Your task to perform on an android device: uninstall "Facebook Messenger" Image 0: 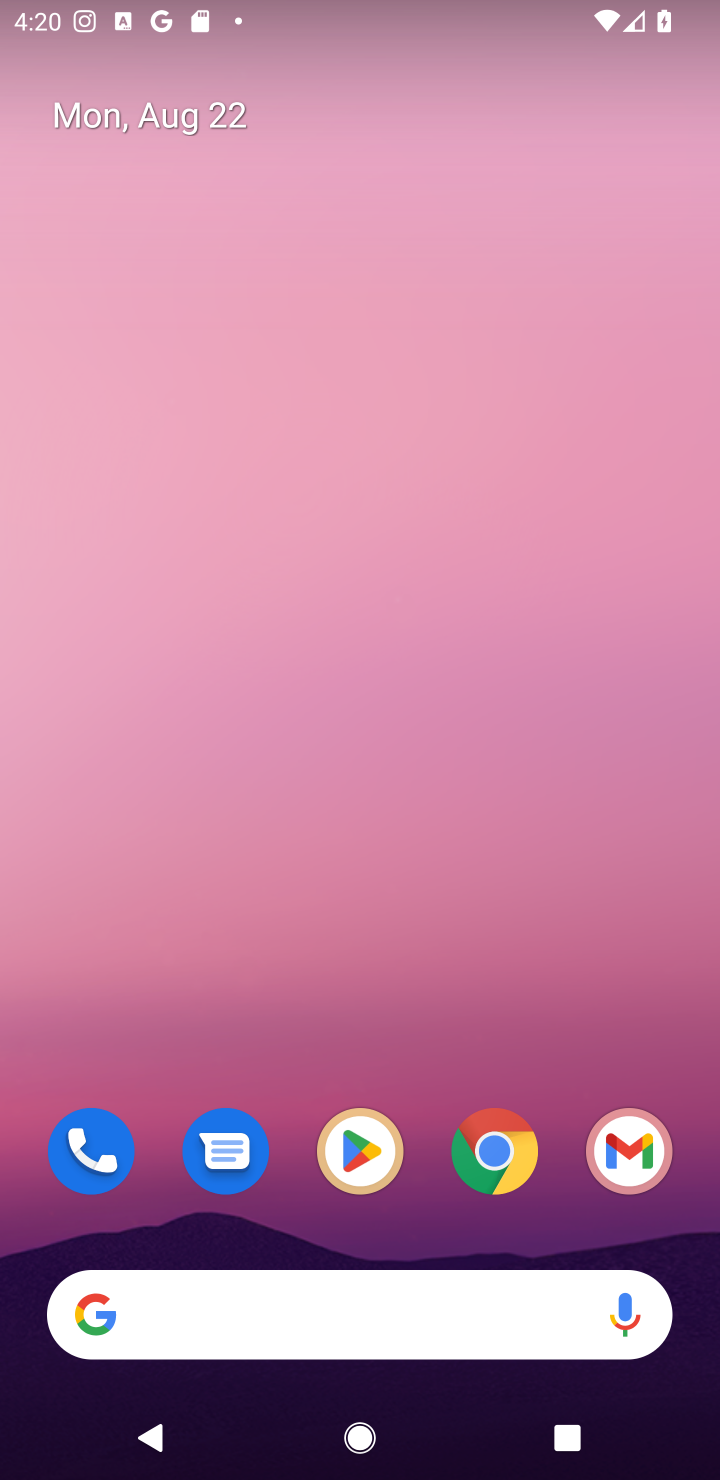
Step 0: click (368, 1144)
Your task to perform on an android device: uninstall "Facebook Messenger" Image 1: 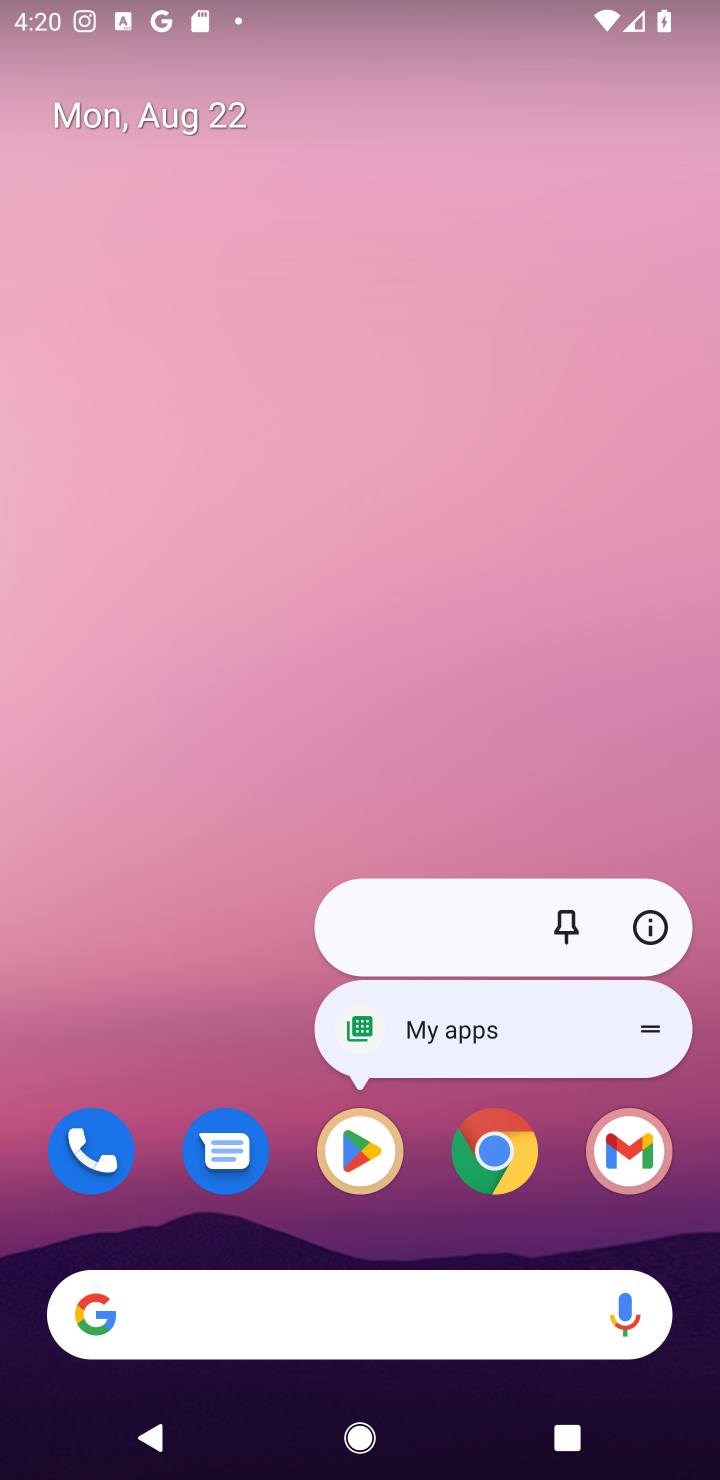
Step 1: click (368, 1147)
Your task to perform on an android device: uninstall "Facebook Messenger" Image 2: 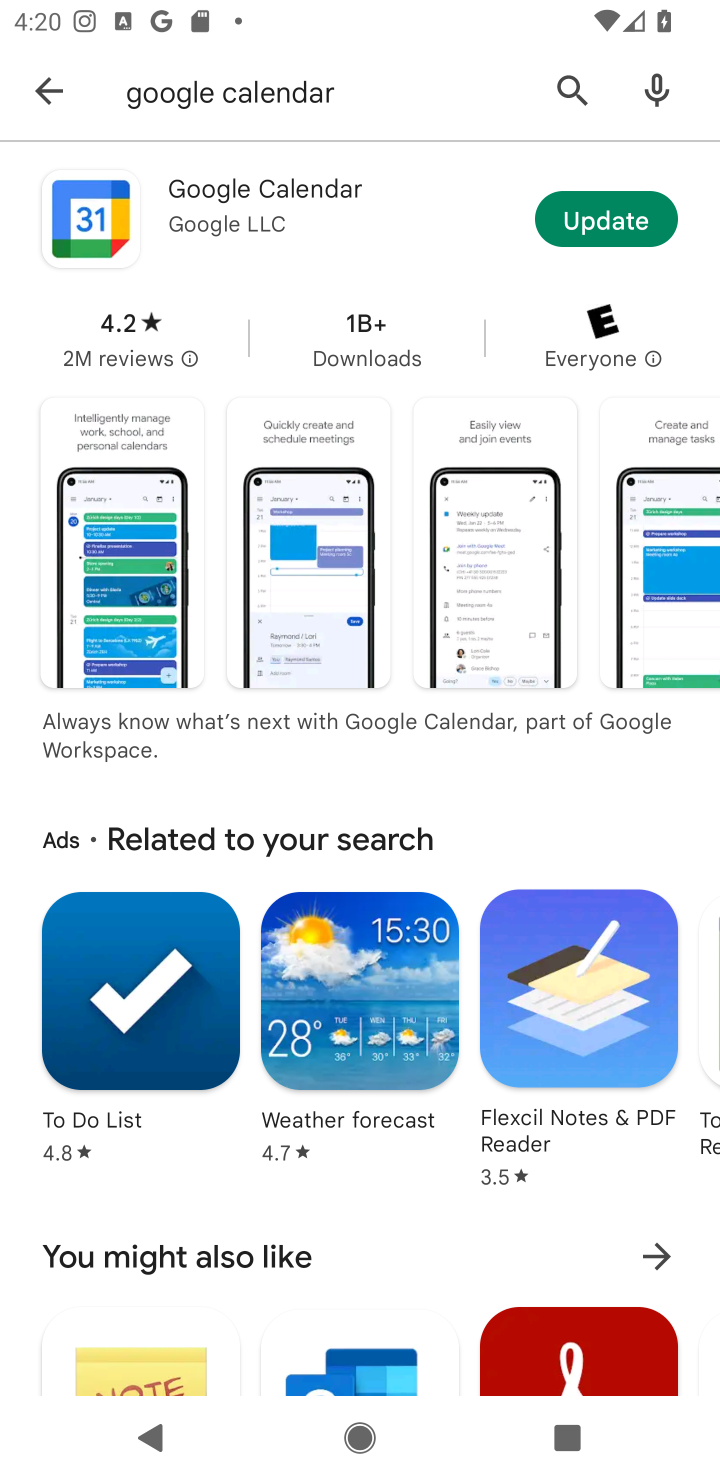
Step 2: click (569, 80)
Your task to perform on an android device: uninstall "Facebook Messenger" Image 3: 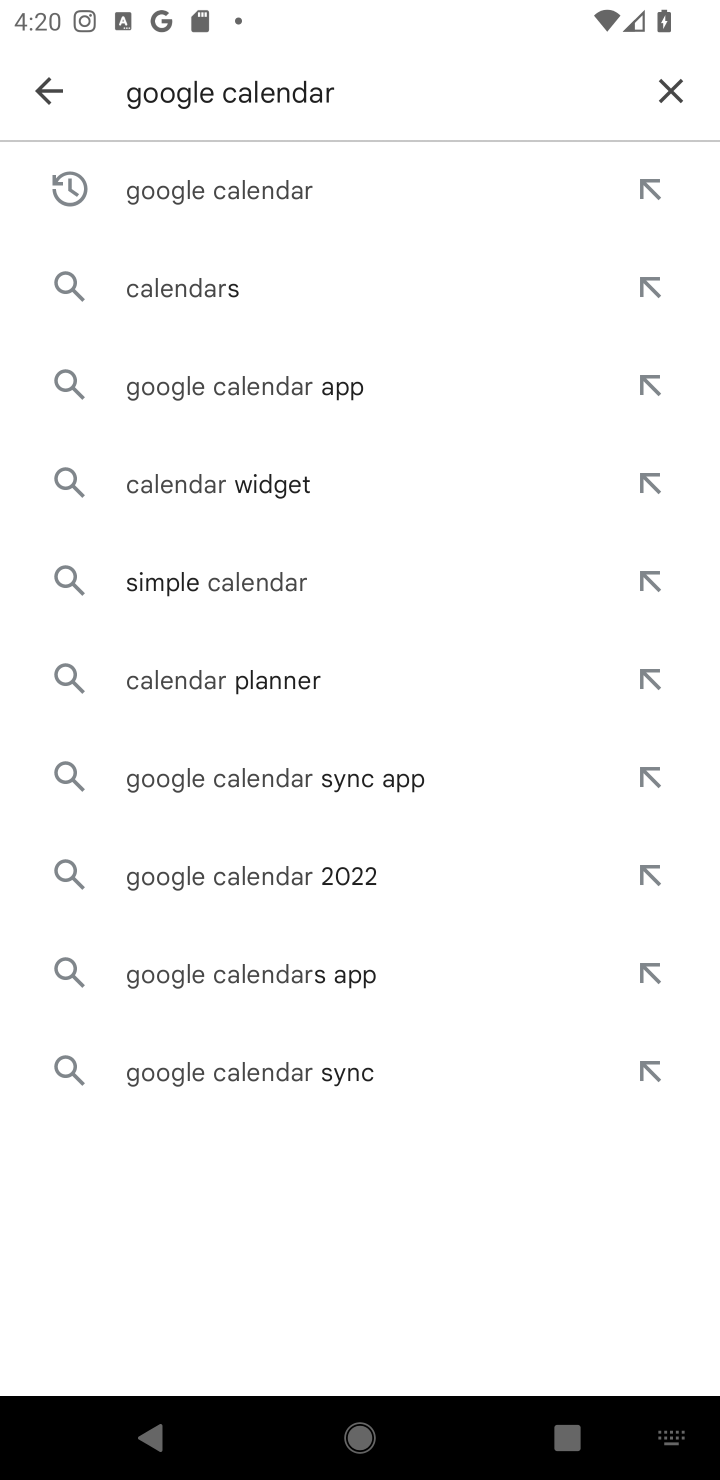
Step 3: click (684, 95)
Your task to perform on an android device: uninstall "Facebook Messenger" Image 4: 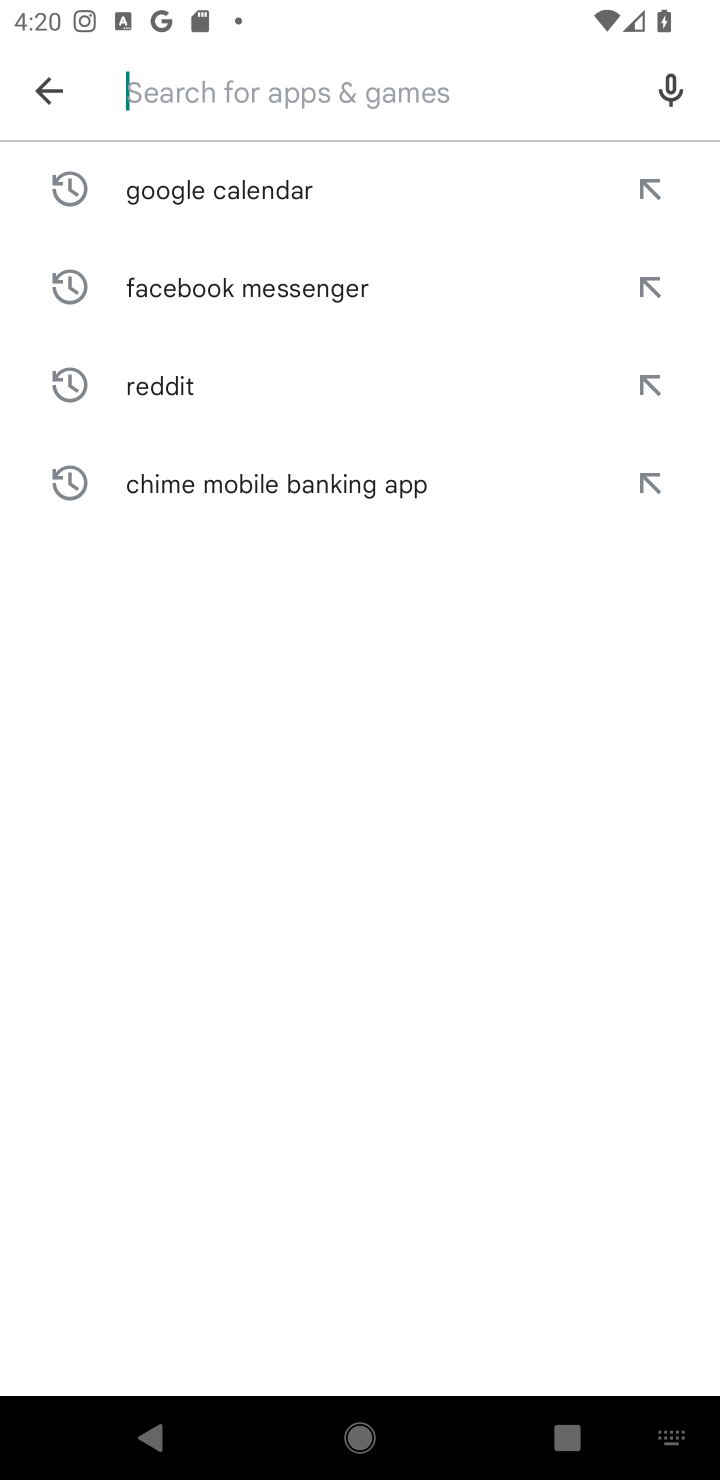
Step 4: type "Facebook Messenger"
Your task to perform on an android device: uninstall "Facebook Messenger" Image 5: 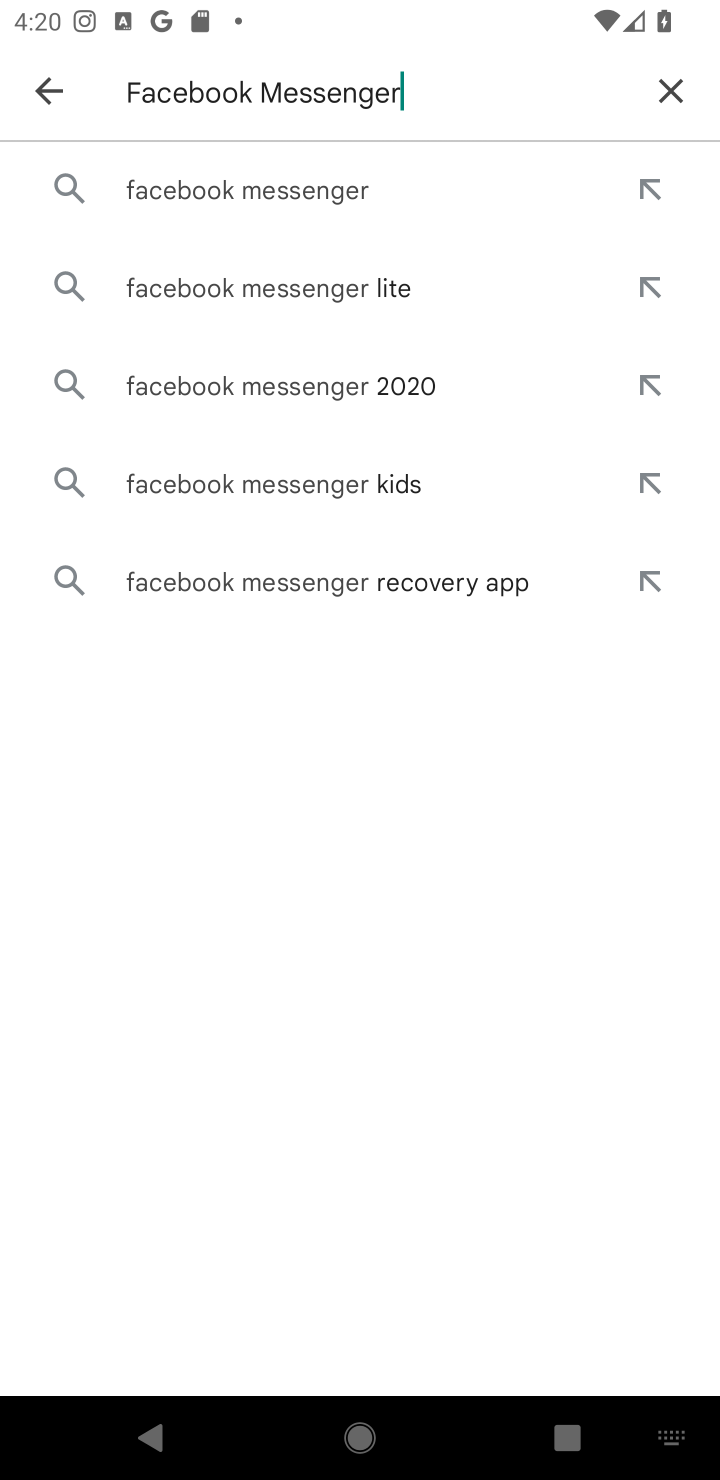
Step 5: click (276, 199)
Your task to perform on an android device: uninstall "Facebook Messenger" Image 6: 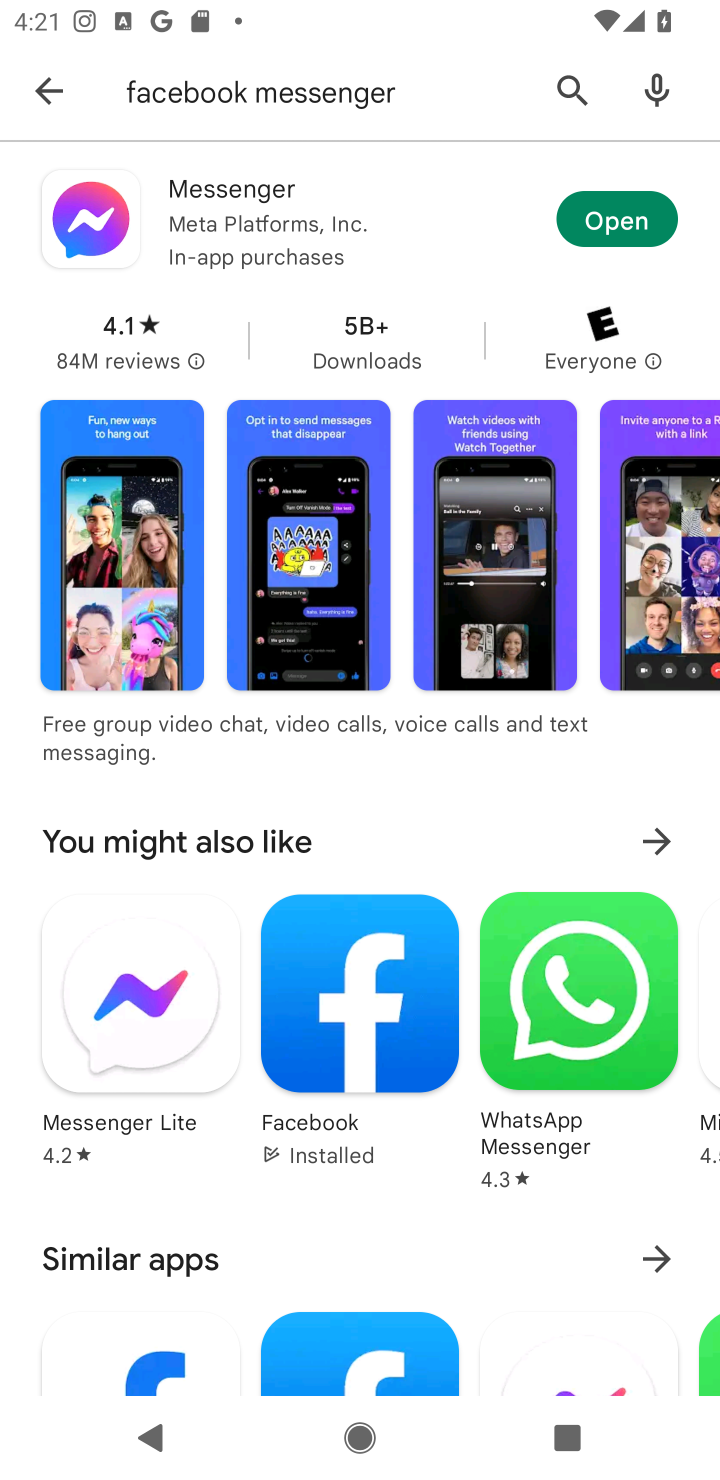
Step 6: click (188, 233)
Your task to perform on an android device: uninstall "Facebook Messenger" Image 7: 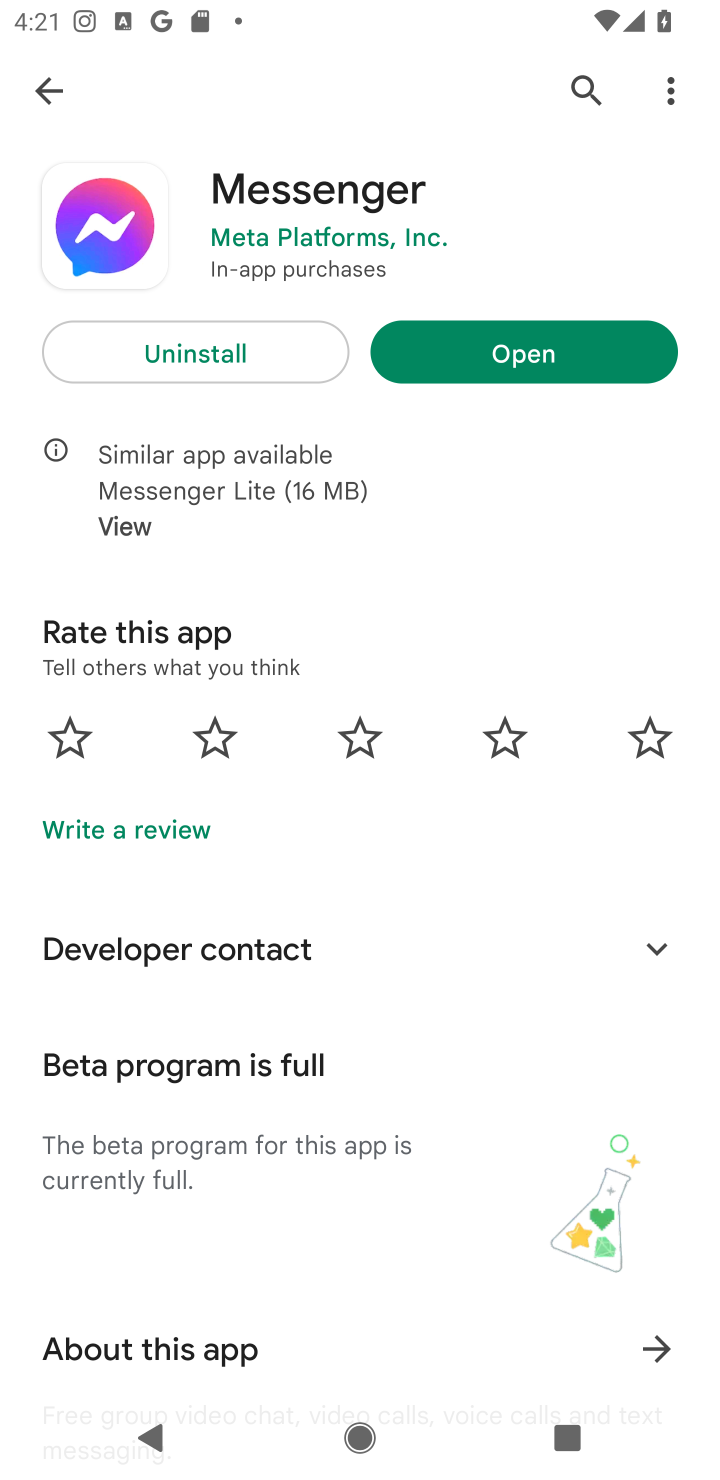
Step 7: click (176, 345)
Your task to perform on an android device: uninstall "Facebook Messenger" Image 8: 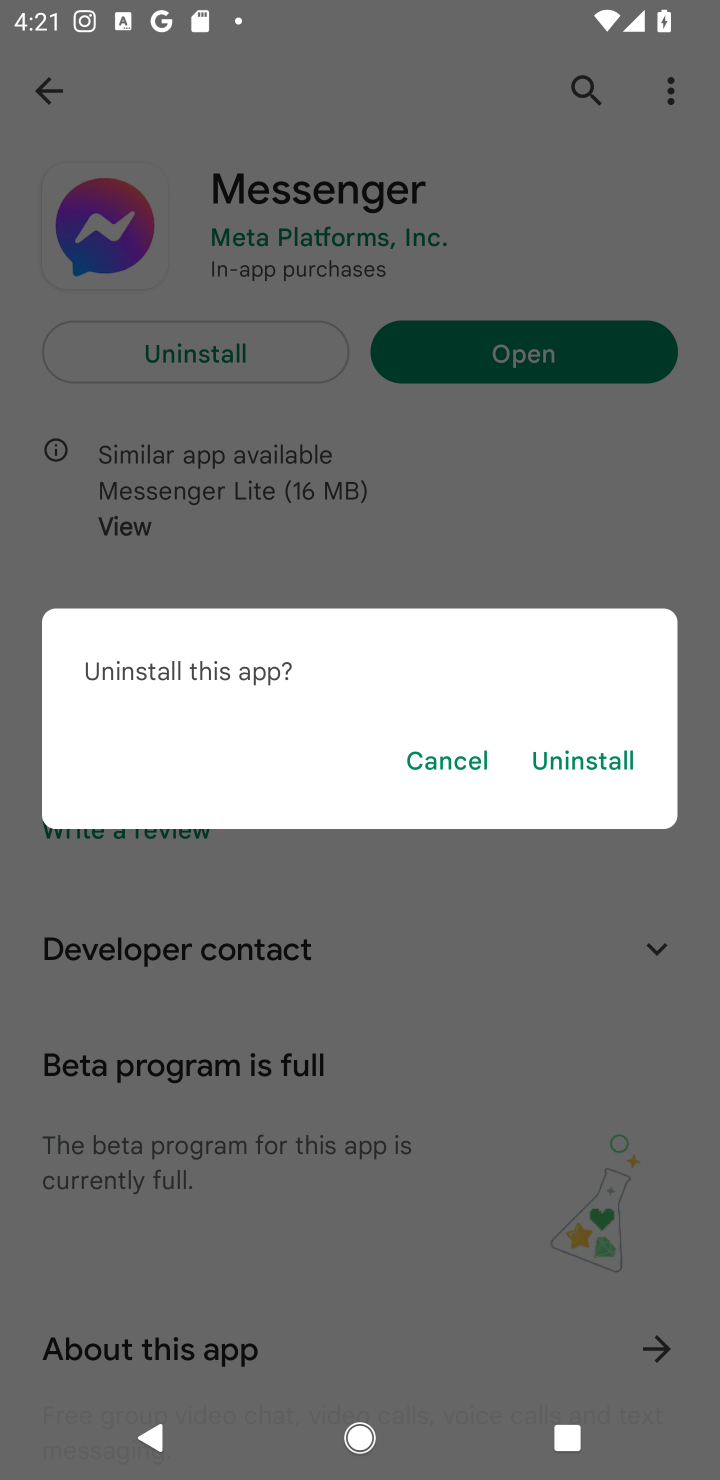
Step 8: click (615, 763)
Your task to perform on an android device: uninstall "Facebook Messenger" Image 9: 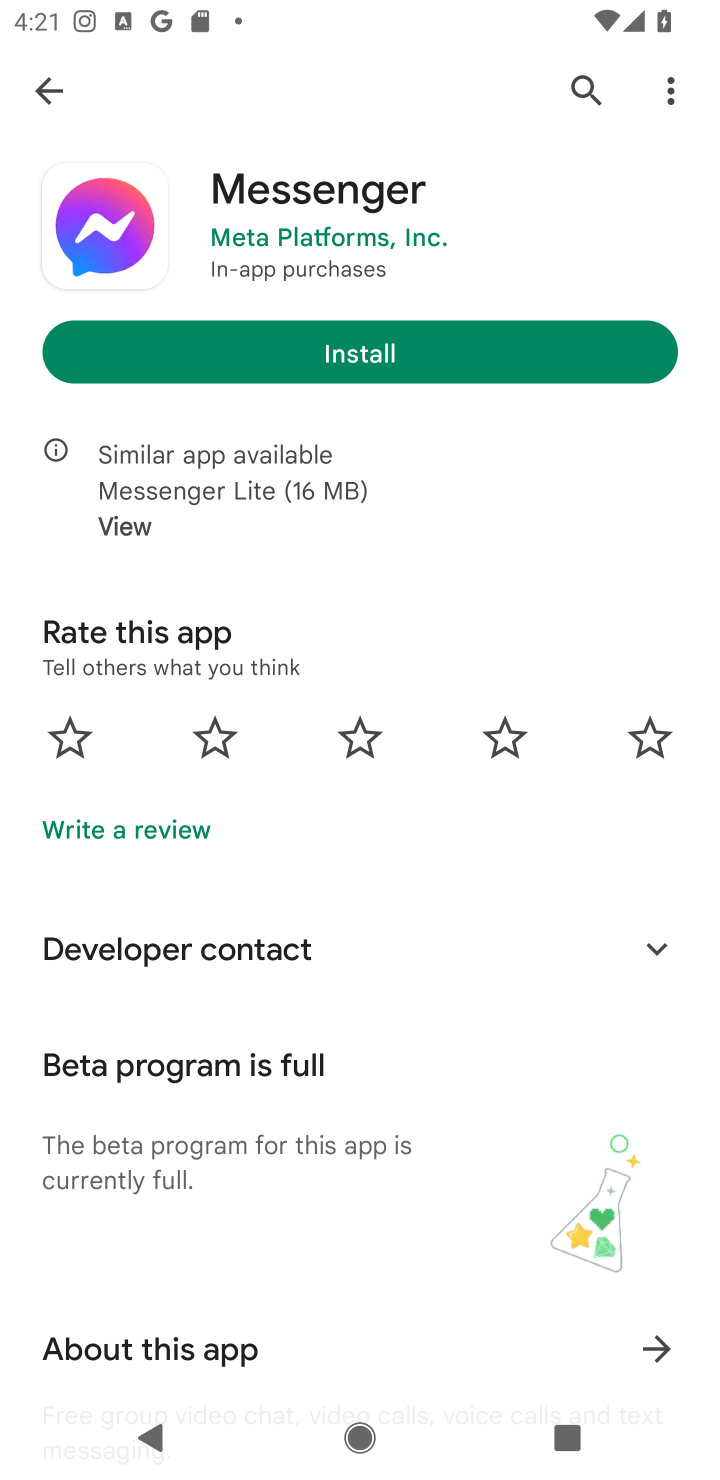
Step 9: task complete